Your task to perform on an android device: turn on location history Image 0: 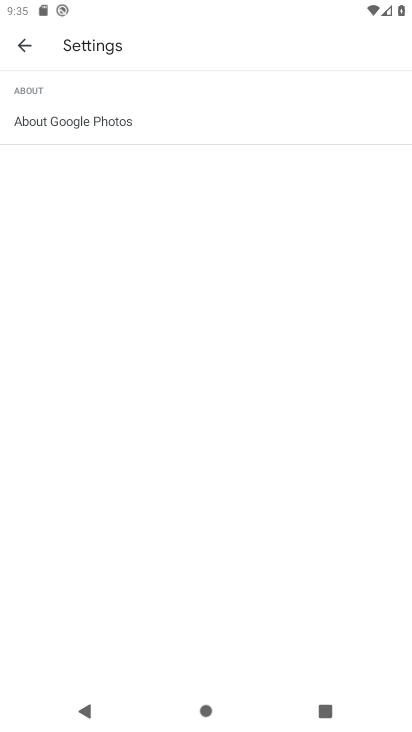
Step 0: press home button
Your task to perform on an android device: turn on location history Image 1: 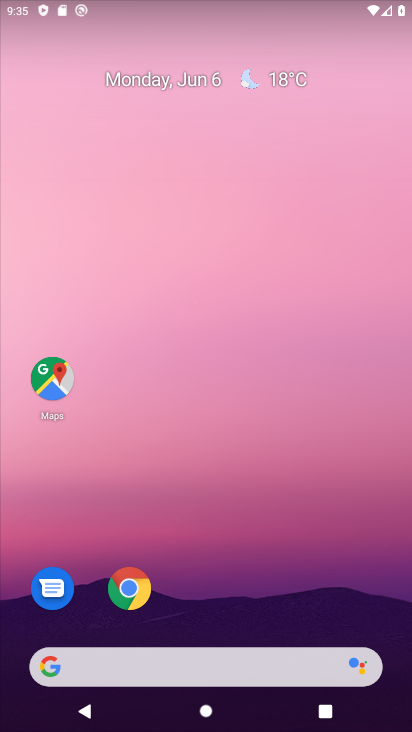
Step 1: drag from (217, 613) to (241, 44)
Your task to perform on an android device: turn on location history Image 2: 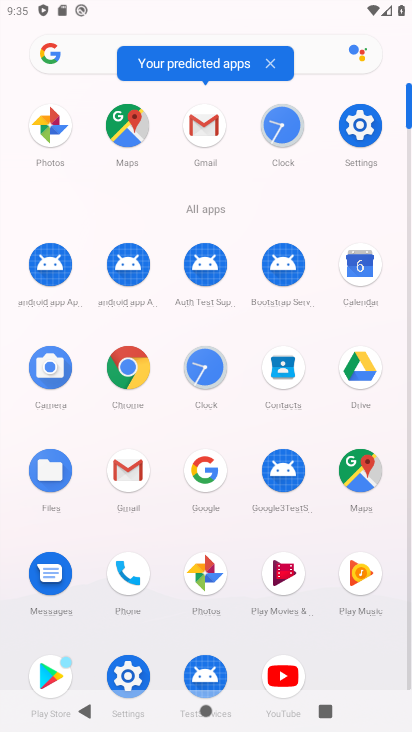
Step 2: click (359, 119)
Your task to perform on an android device: turn on location history Image 3: 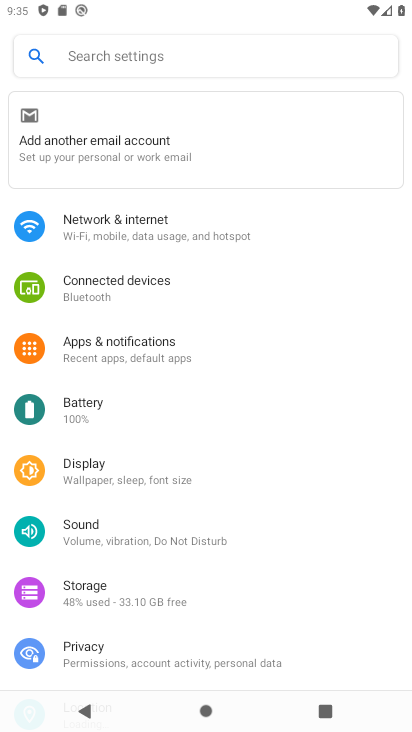
Step 3: drag from (127, 625) to (154, 120)
Your task to perform on an android device: turn on location history Image 4: 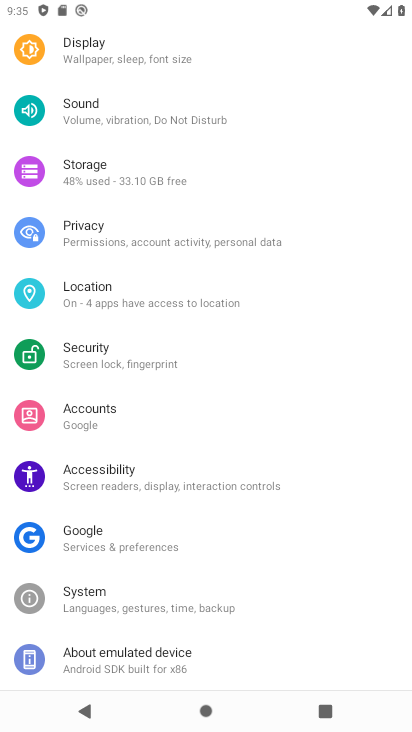
Step 4: click (131, 284)
Your task to perform on an android device: turn on location history Image 5: 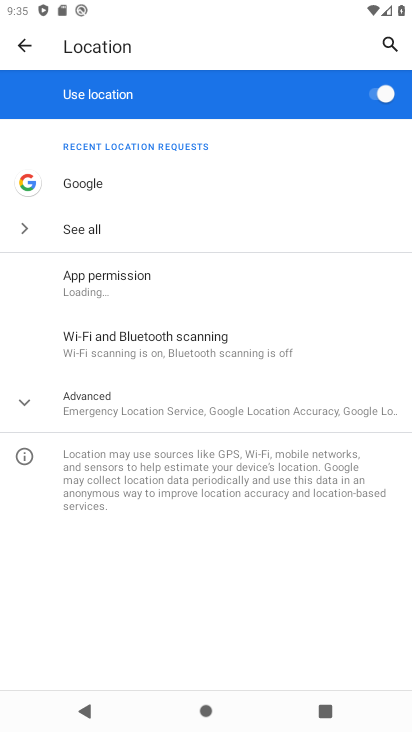
Step 5: click (71, 398)
Your task to perform on an android device: turn on location history Image 6: 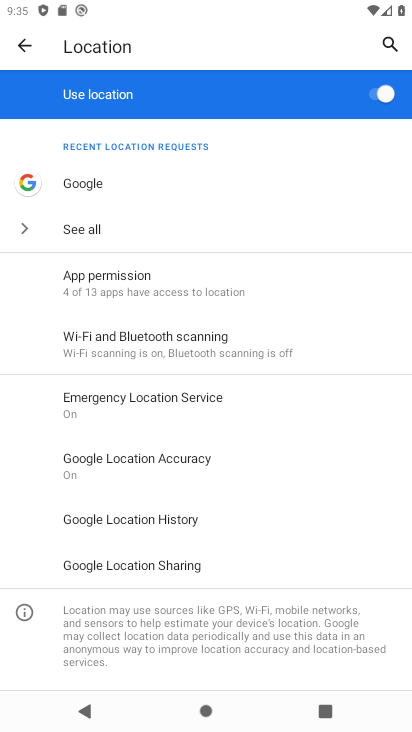
Step 6: click (206, 521)
Your task to perform on an android device: turn on location history Image 7: 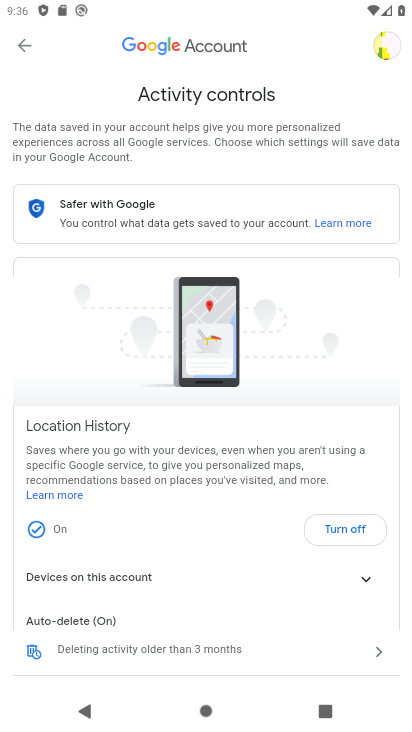
Step 7: task complete